Your task to perform on an android device: turn off picture-in-picture Image 0: 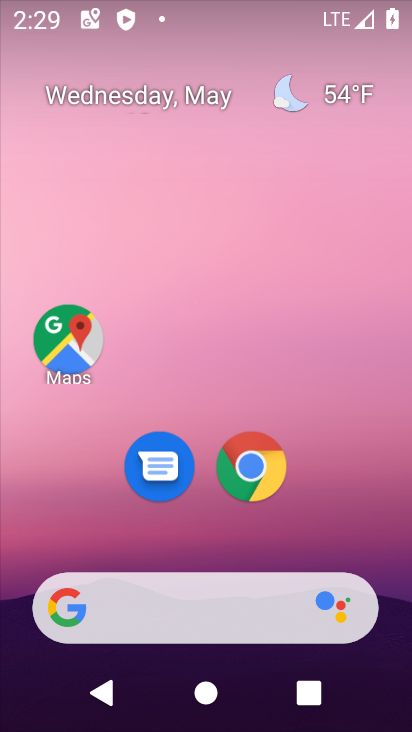
Step 0: click (273, 470)
Your task to perform on an android device: turn off picture-in-picture Image 1: 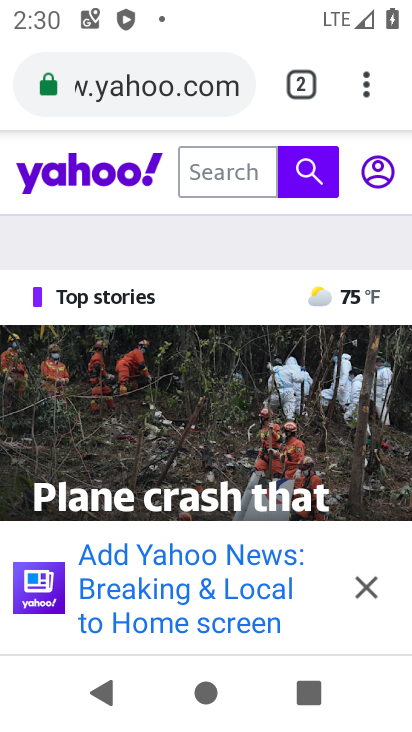
Step 1: press home button
Your task to perform on an android device: turn off picture-in-picture Image 2: 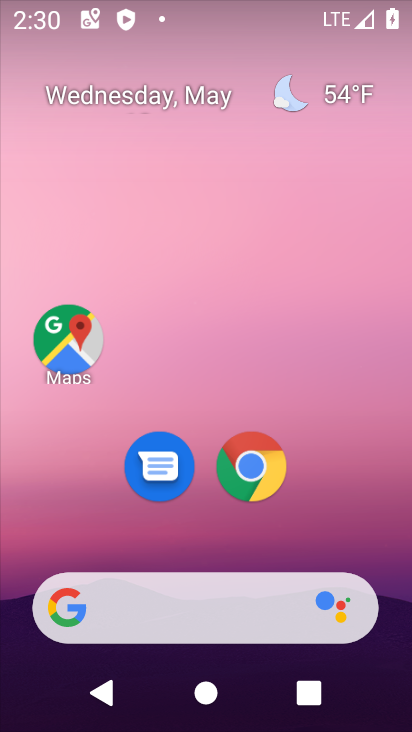
Step 2: click (271, 458)
Your task to perform on an android device: turn off picture-in-picture Image 3: 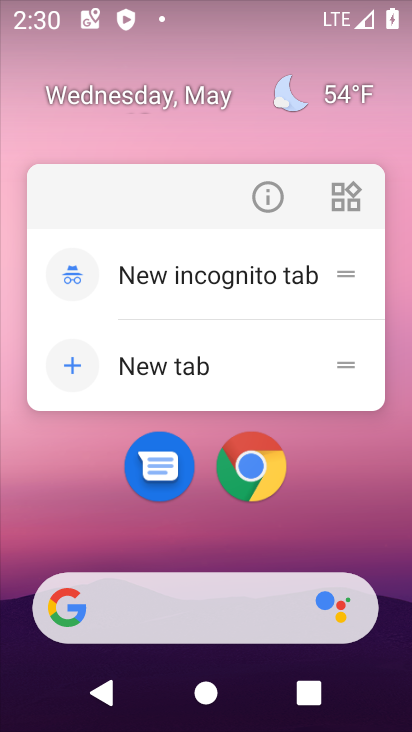
Step 3: click (267, 198)
Your task to perform on an android device: turn off picture-in-picture Image 4: 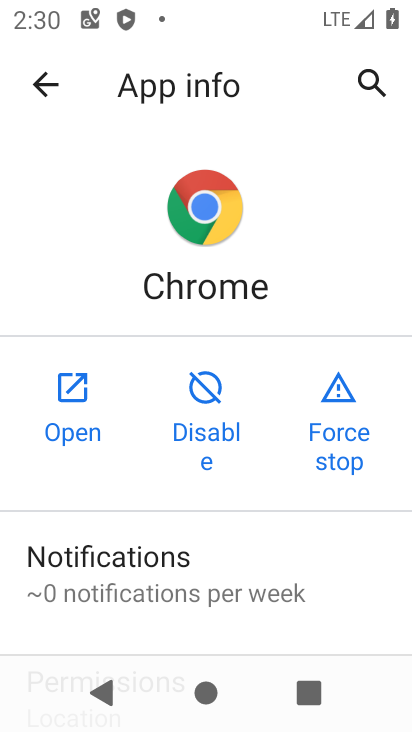
Step 4: drag from (326, 614) to (291, 297)
Your task to perform on an android device: turn off picture-in-picture Image 5: 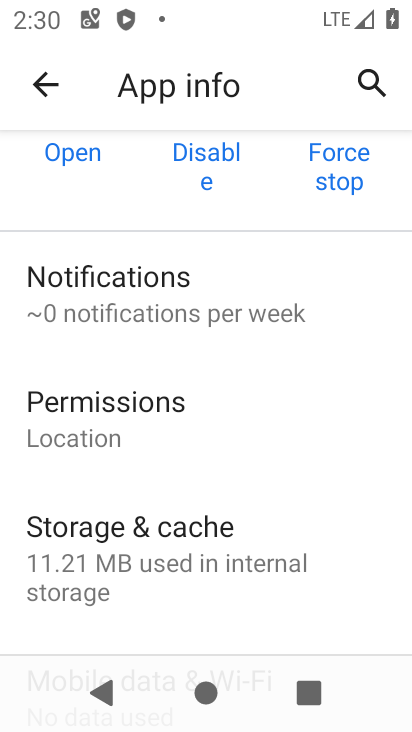
Step 5: drag from (315, 532) to (291, 301)
Your task to perform on an android device: turn off picture-in-picture Image 6: 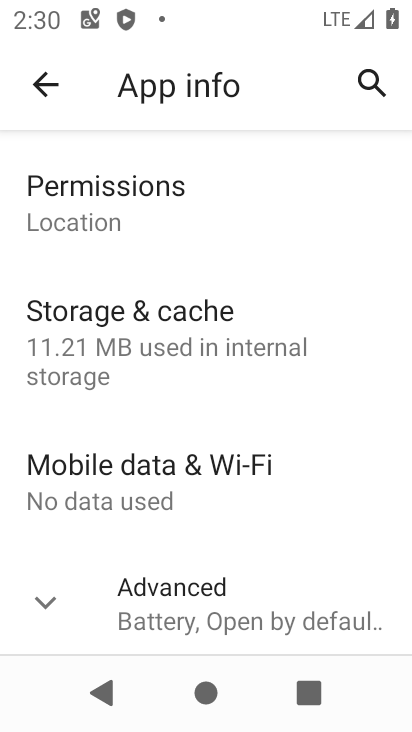
Step 6: click (253, 598)
Your task to perform on an android device: turn off picture-in-picture Image 7: 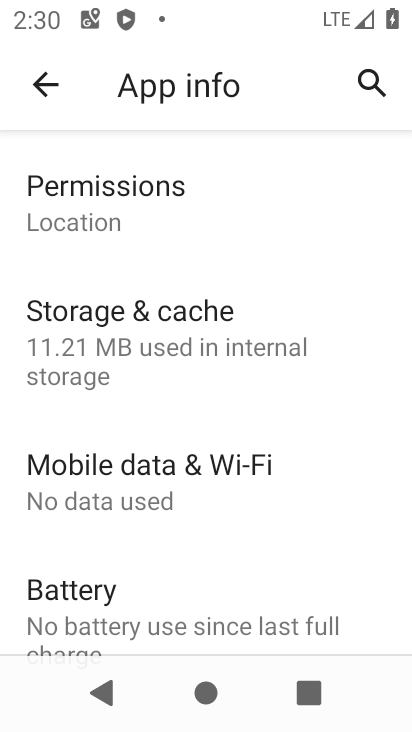
Step 7: drag from (253, 598) to (208, 117)
Your task to perform on an android device: turn off picture-in-picture Image 8: 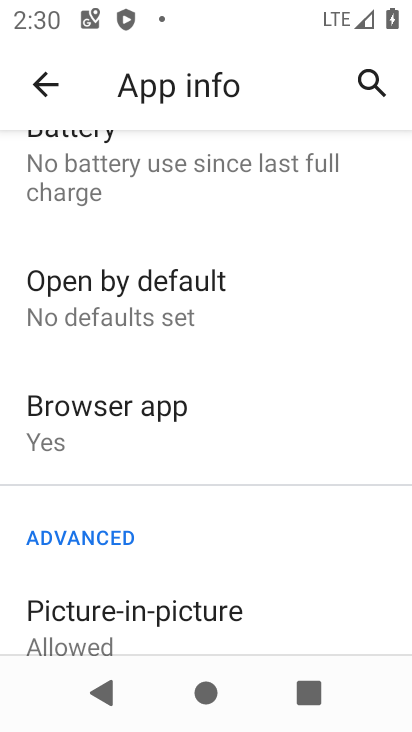
Step 8: click (227, 615)
Your task to perform on an android device: turn off picture-in-picture Image 9: 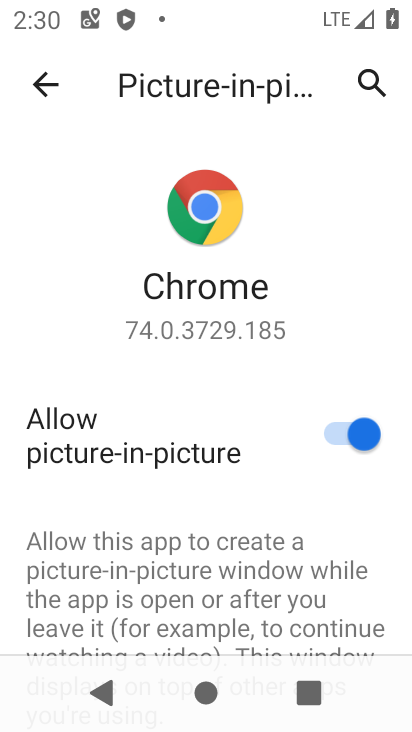
Step 9: click (345, 432)
Your task to perform on an android device: turn off picture-in-picture Image 10: 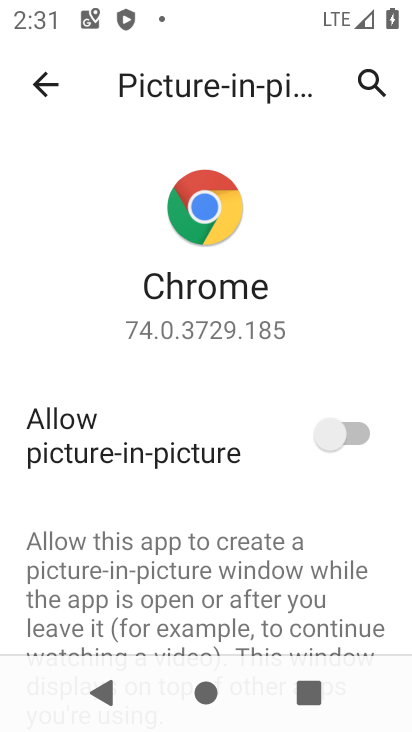
Step 10: task complete